Your task to perform on an android device: move a message to another label in the gmail app Image 0: 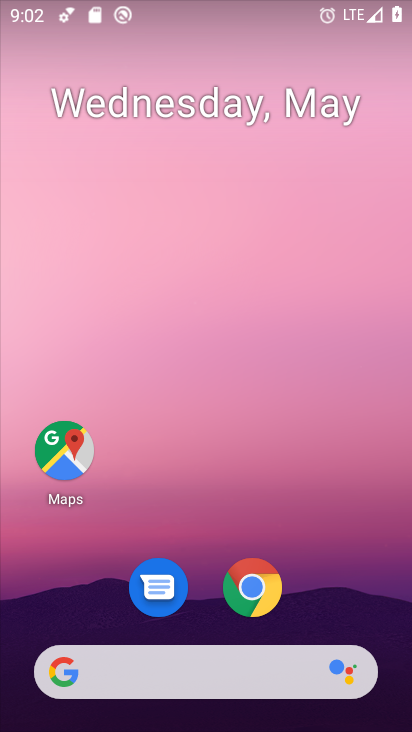
Step 0: drag from (200, 613) to (251, 22)
Your task to perform on an android device: move a message to another label in the gmail app Image 1: 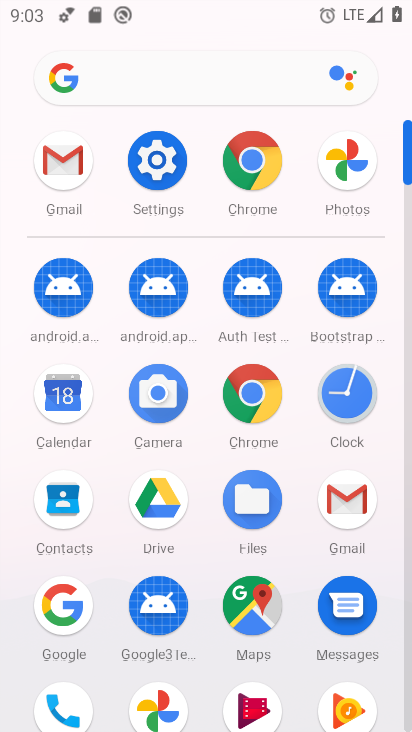
Step 1: click (349, 510)
Your task to perform on an android device: move a message to another label in the gmail app Image 2: 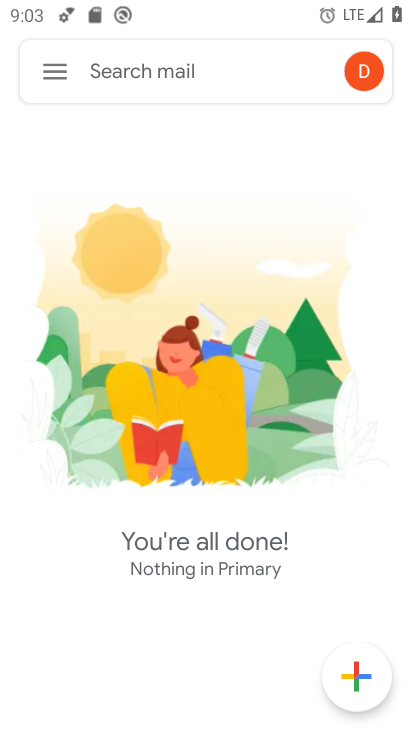
Step 2: click (48, 70)
Your task to perform on an android device: move a message to another label in the gmail app Image 3: 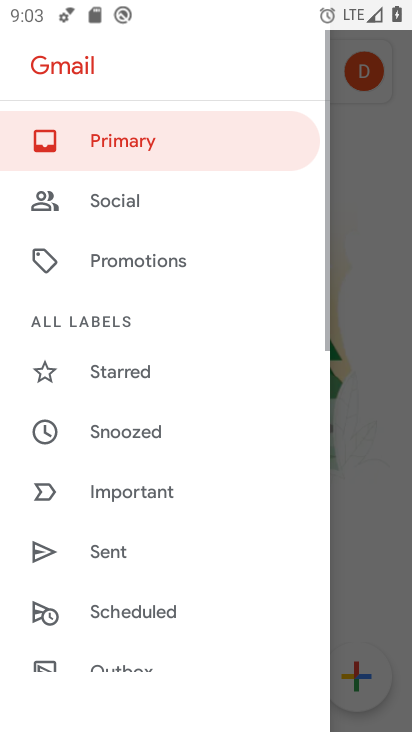
Step 3: drag from (92, 577) to (117, 281)
Your task to perform on an android device: move a message to another label in the gmail app Image 4: 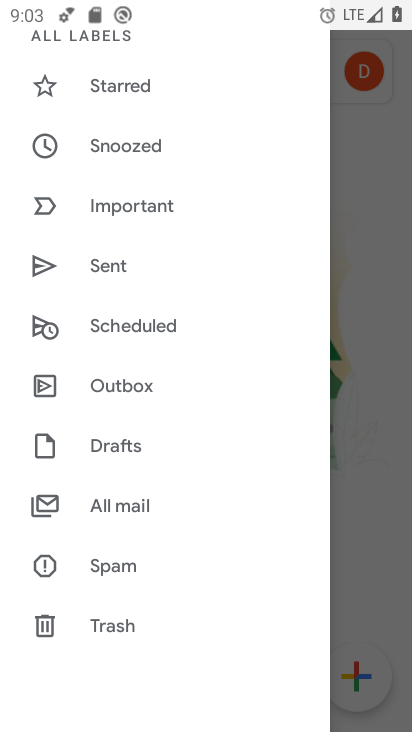
Step 4: click (147, 510)
Your task to perform on an android device: move a message to another label in the gmail app Image 5: 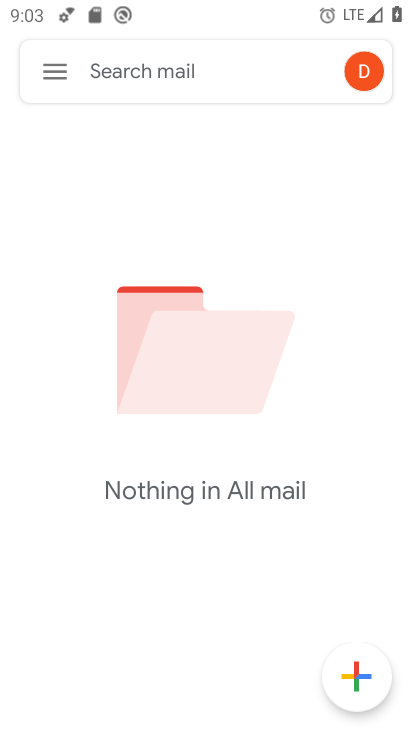
Step 5: task complete